Your task to perform on an android device: install app "McDonald's" Image 0: 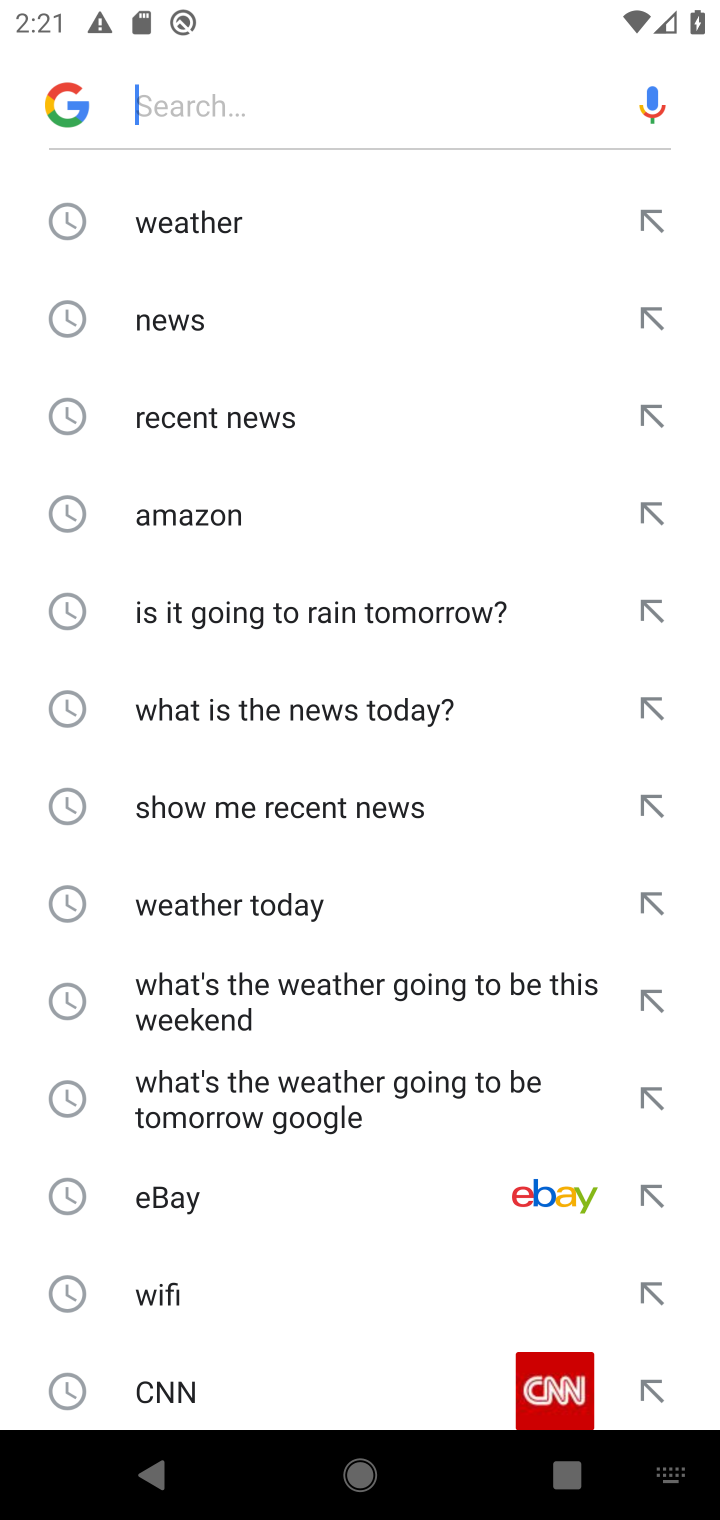
Step 0: press home button
Your task to perform on an android device: install app "McDonald's" Image 1: 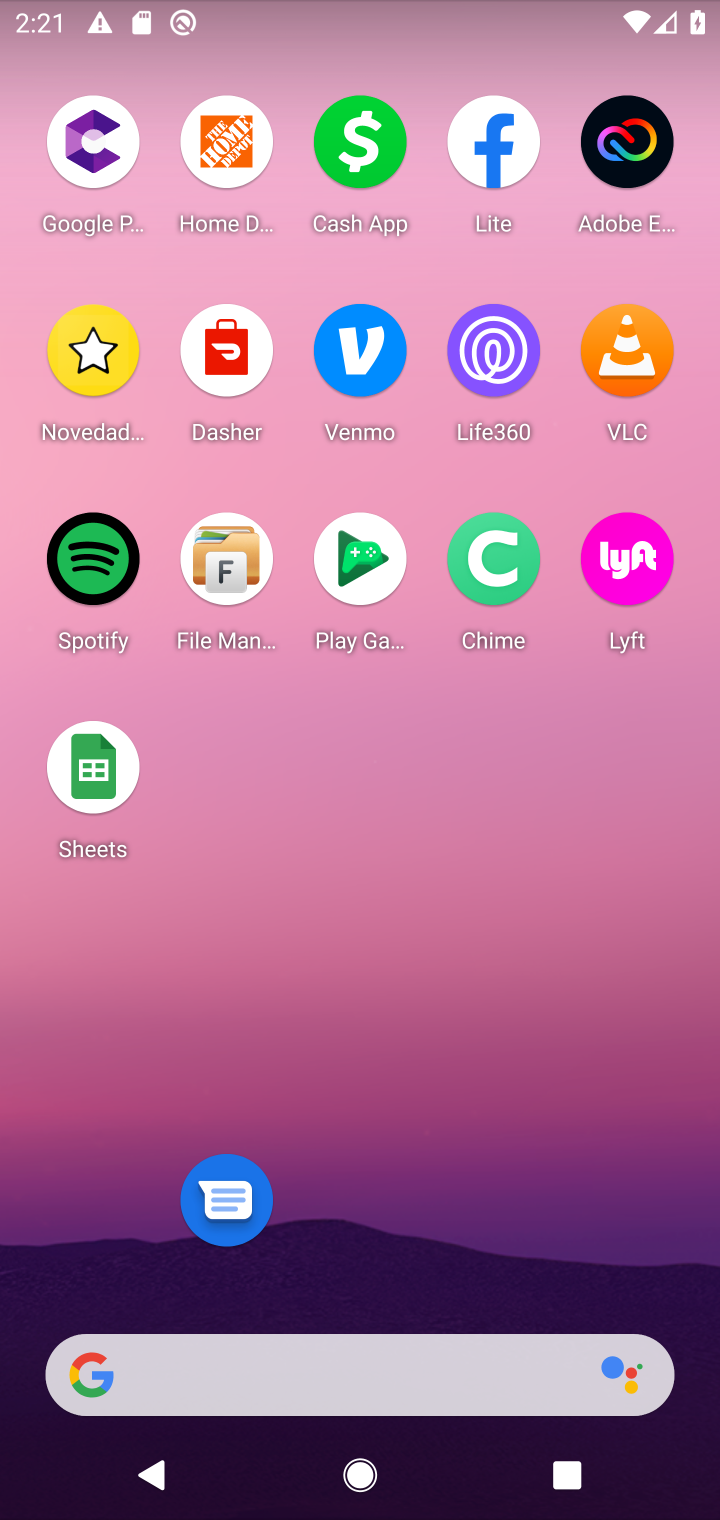
Step 1: drag from (530, 1173) to (513, 181)
Your task to perform on an android device: install app "McDonald's" Image 2: 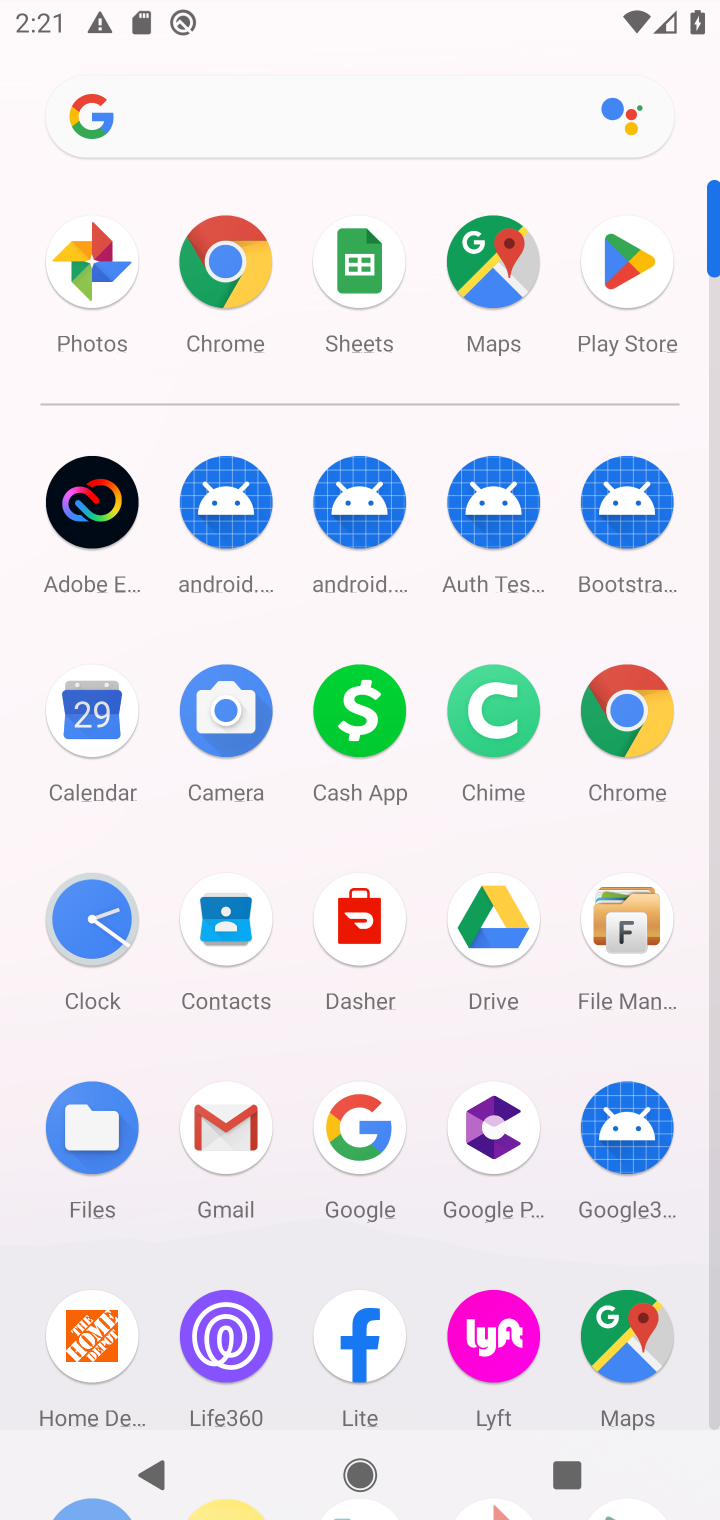
Step 2: click (628, 274)
Your task to perform on an android device: install app "McDonald's" Image 3: 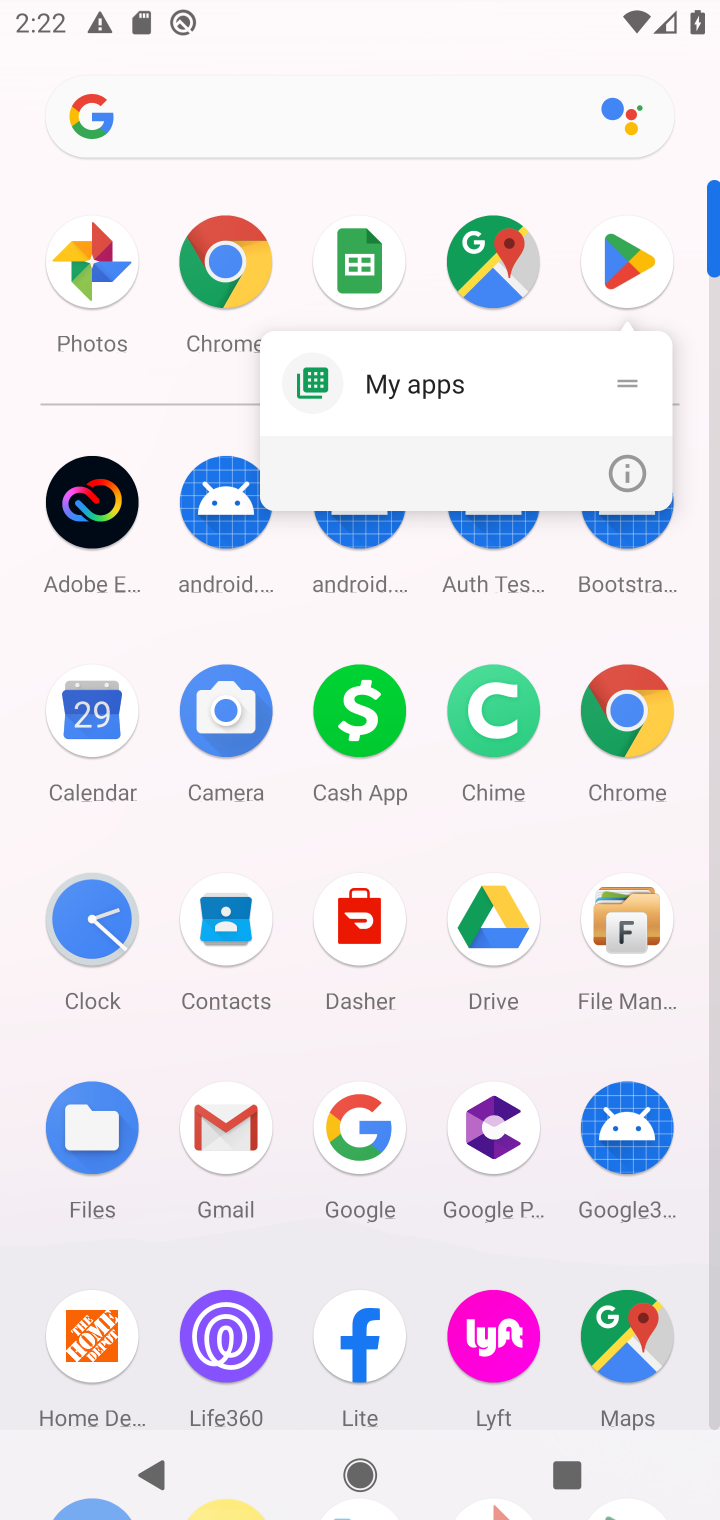
Step 3: click (610, 268)
Your task to perform on an android device: install app "McDonald's" Image 4: 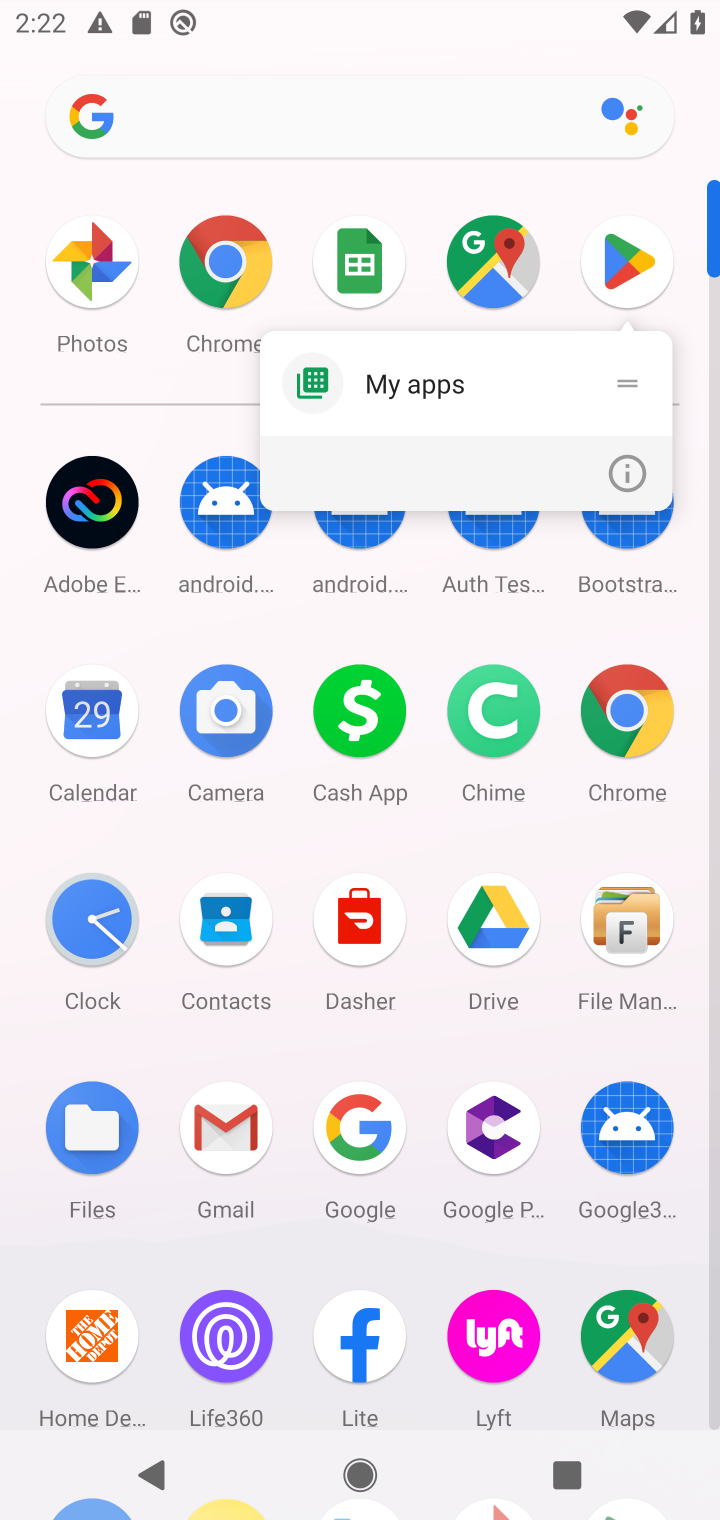
Step 4: click (610, 252)
Your task to perform on an android device: install app "McDonald's" Image 5: 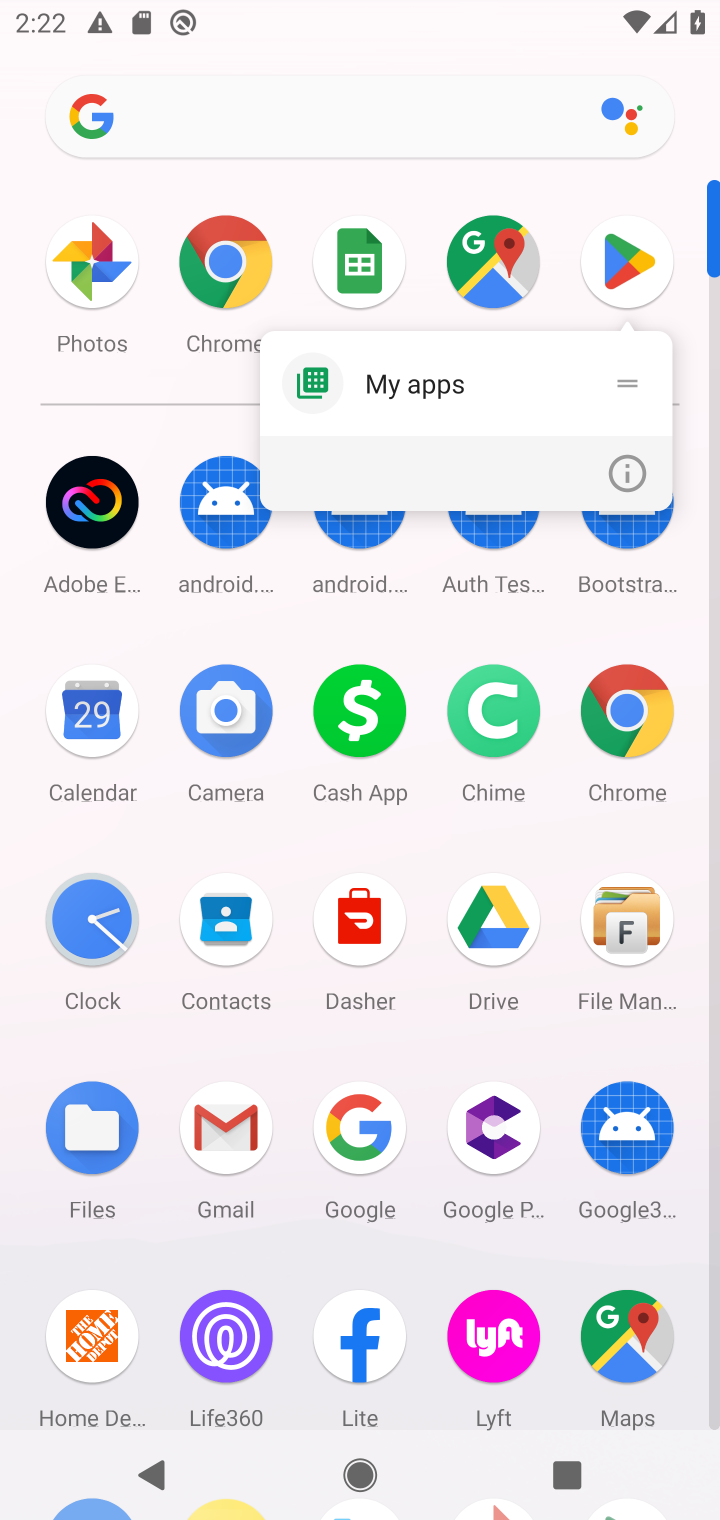
Step 5: click (420, 1212)
Your task to perform on an android device: install app "McDonald's" Image 6: 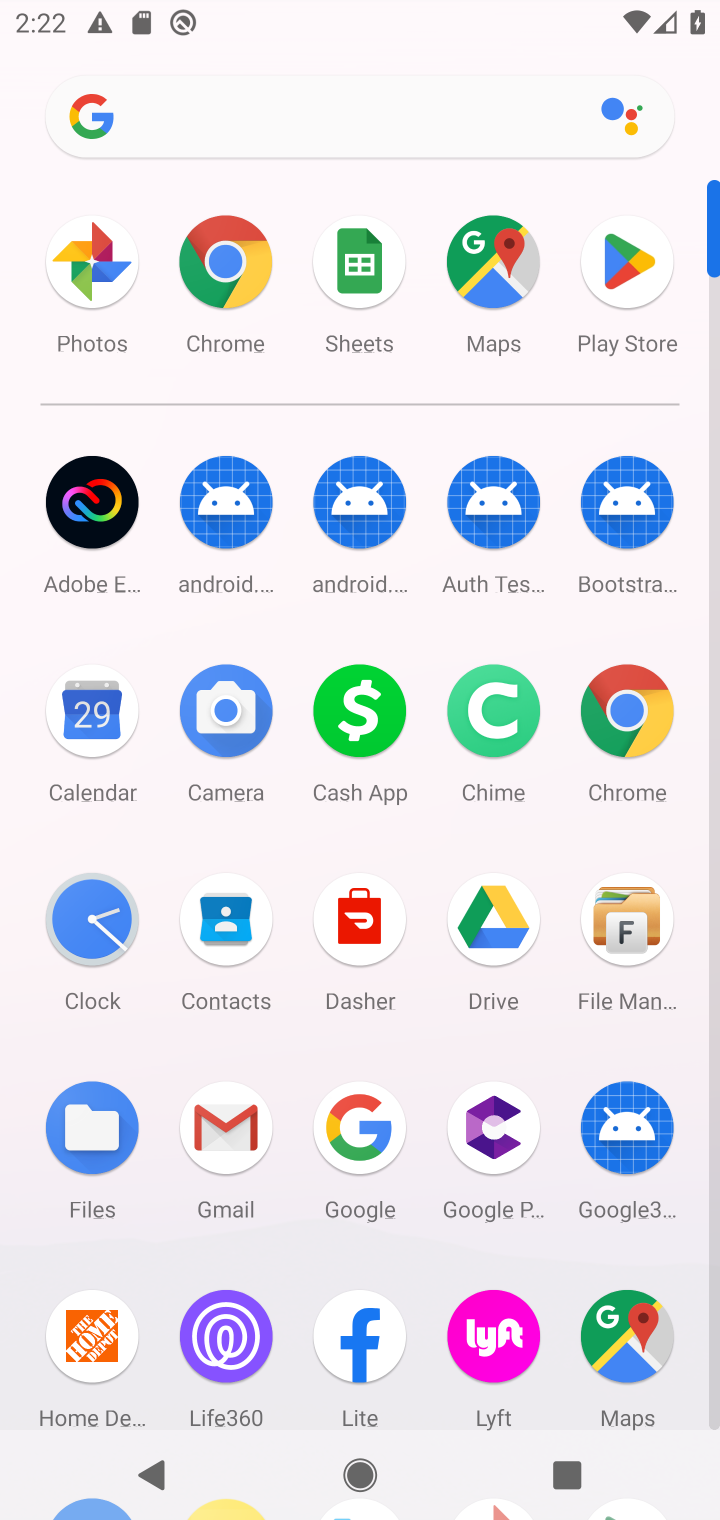
Step 6: drag from (418, 1234) to (510, 316)
Your task to perform on an android device: install app "McDonald's" Image 7: 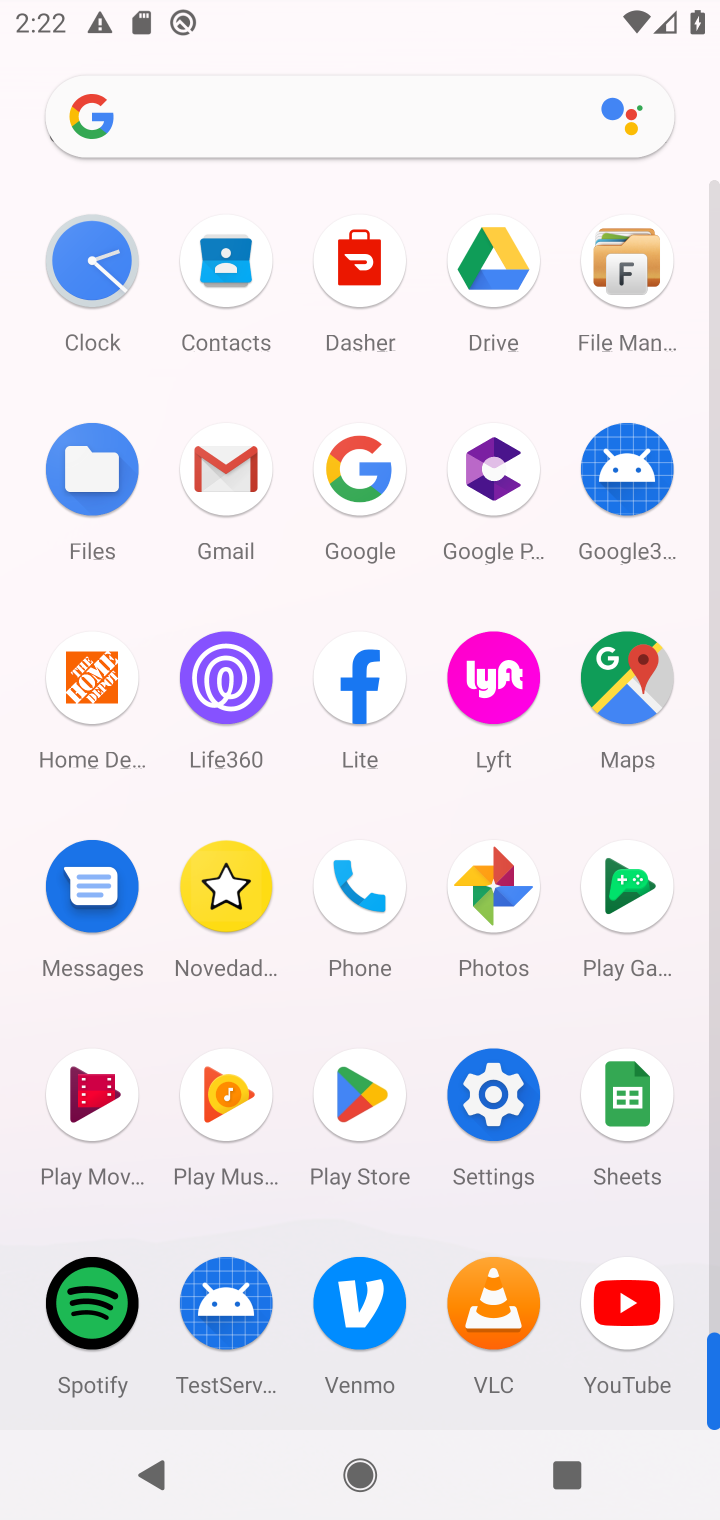
Step 7: click (385, 1064)
Your task to perform on an android device: install app "McDonald's" Image 8: 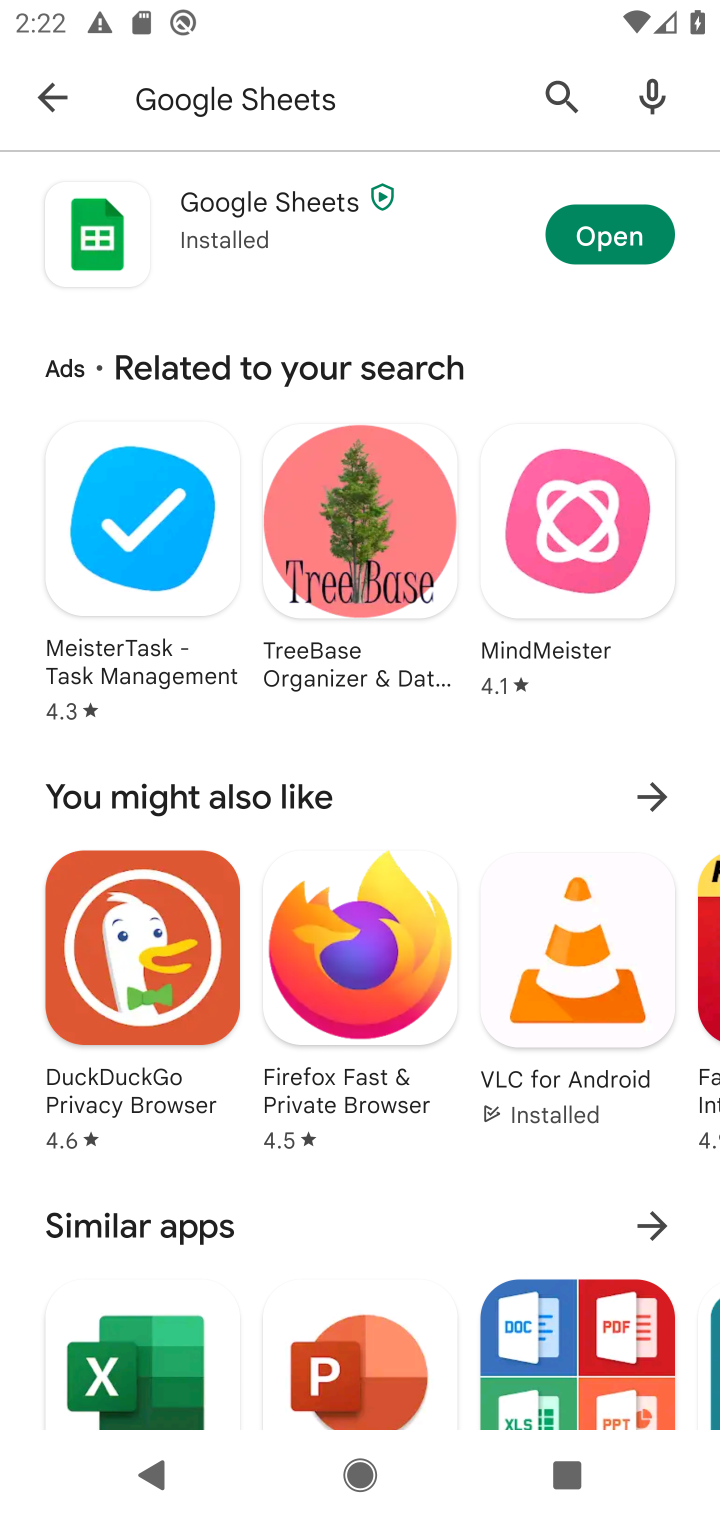
Step 8: click (445, 84)
Your task to perform on an android device: install app "McDonald's" Image 9: 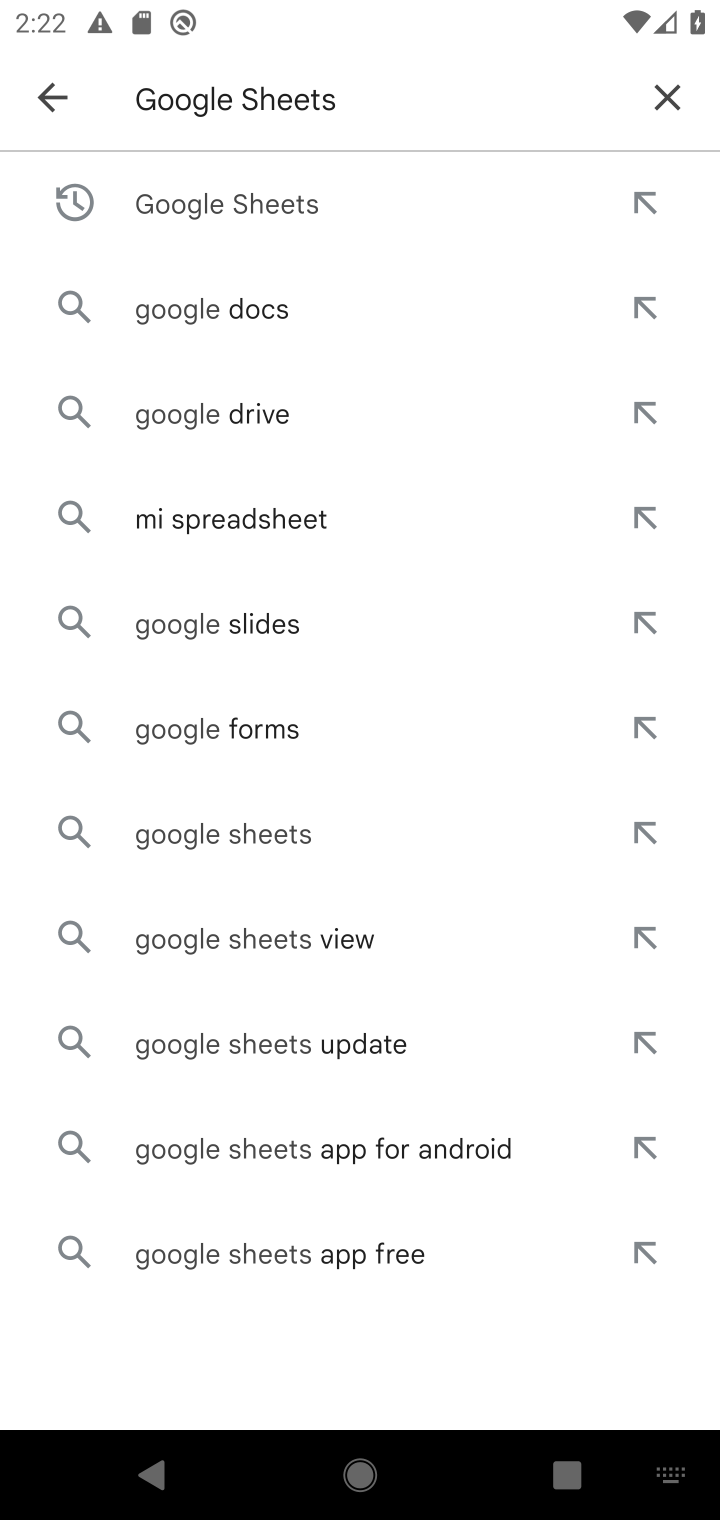
Step 9: click (665, 99)
Your task to perform on an android device: install app "McDonald's" Image 10: 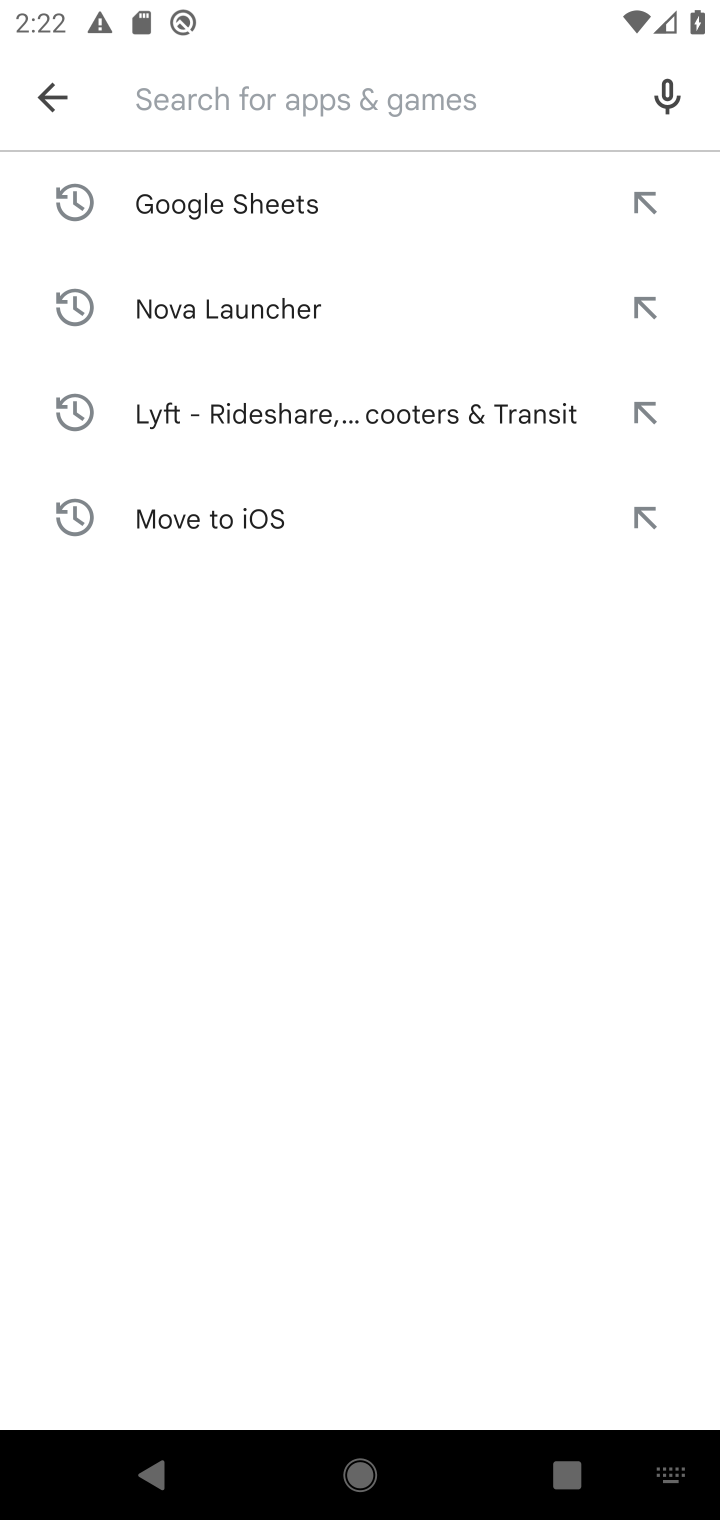
Step 10: type "McDonald's"
Your task to perform on an android device: install app "McDonald's" Image 11: 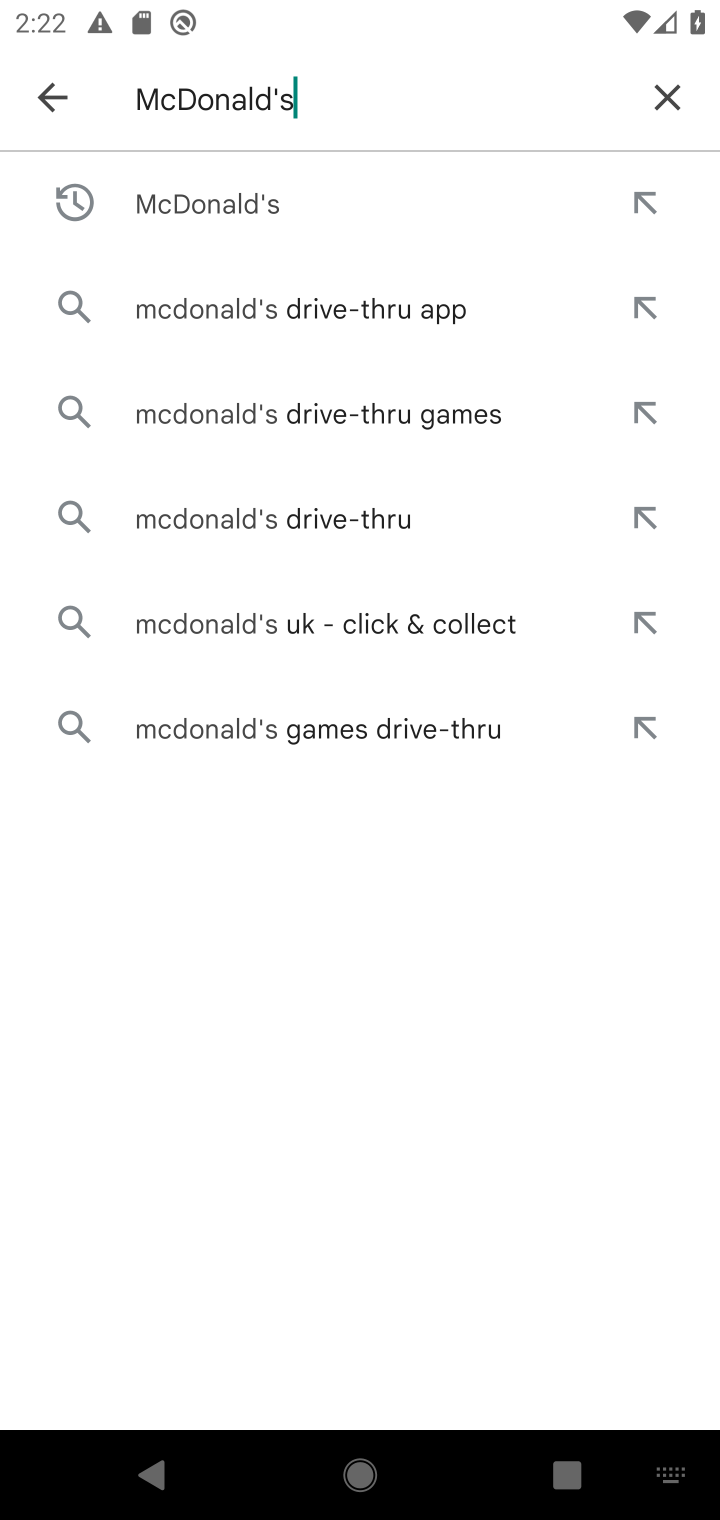
Step 11: press enter
Your task to perform on an android device: install app "McDonald's" Image 12: 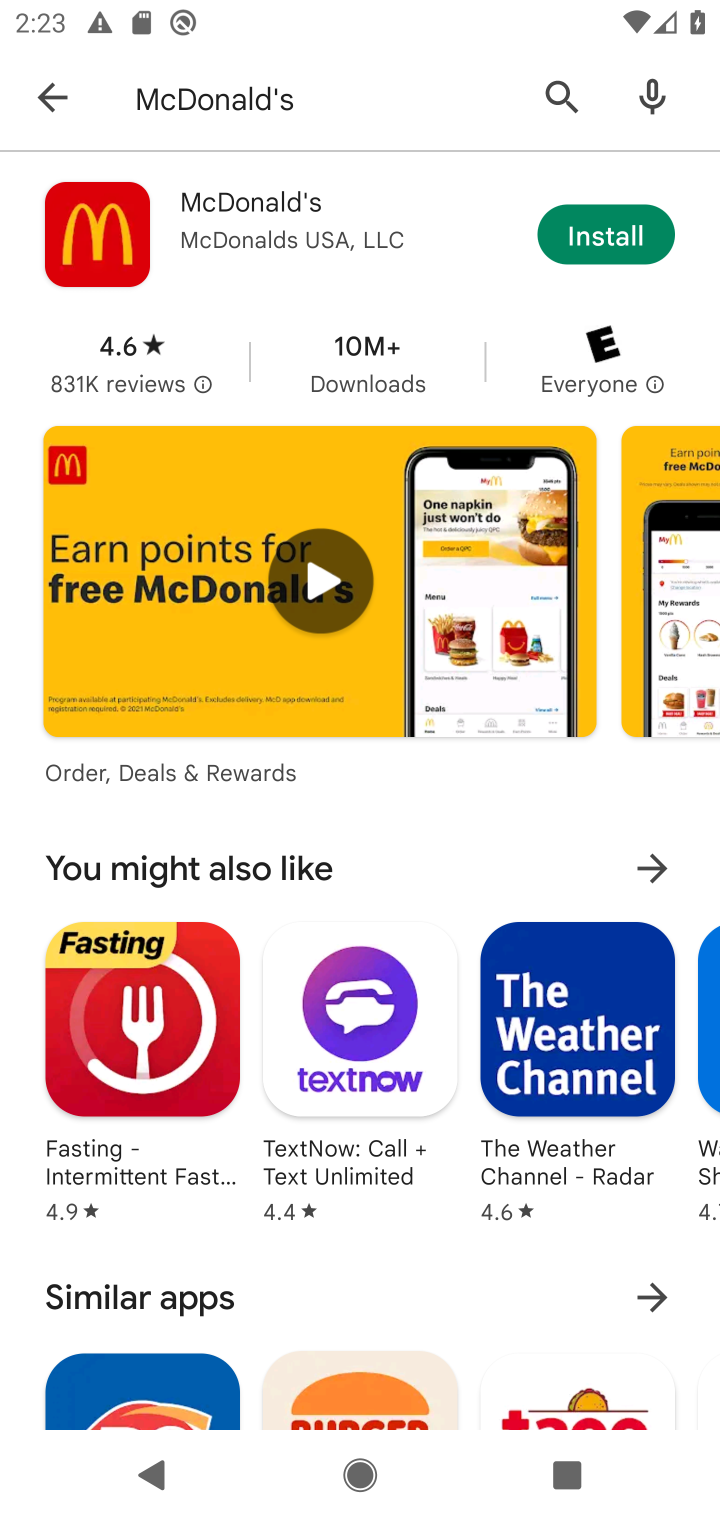
Step 12: click (623, 237)
Your task to perform on an android device: install app "McDonald's" Image 13: 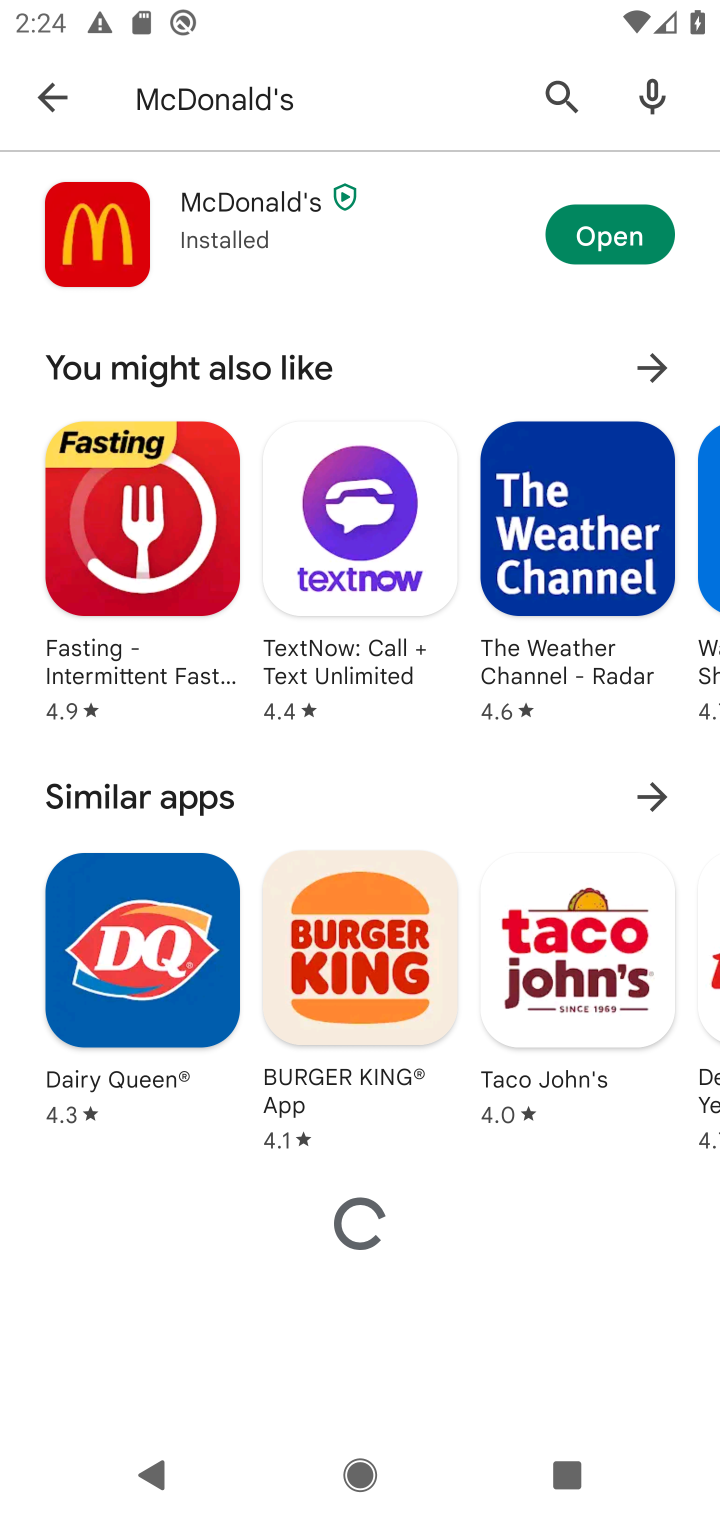
Step 13: task complete